Your task to perform on an android device: Is it going to rain this weekend? Image 0: 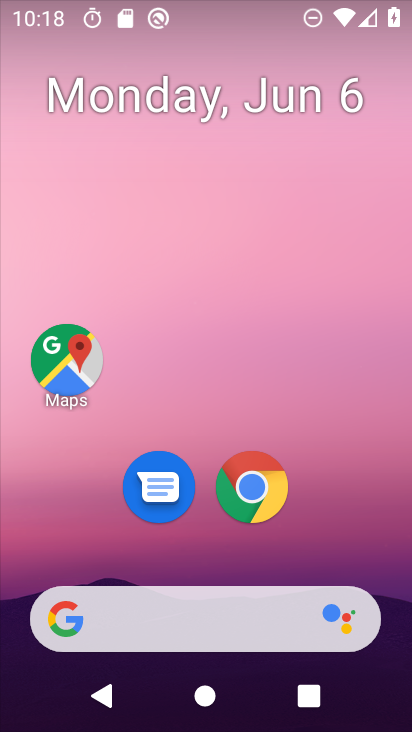
Step 0: drag from (398, 607) to (348, 32)
Your task to perform on an android device: Is it going to rain this weekend? Image 1: 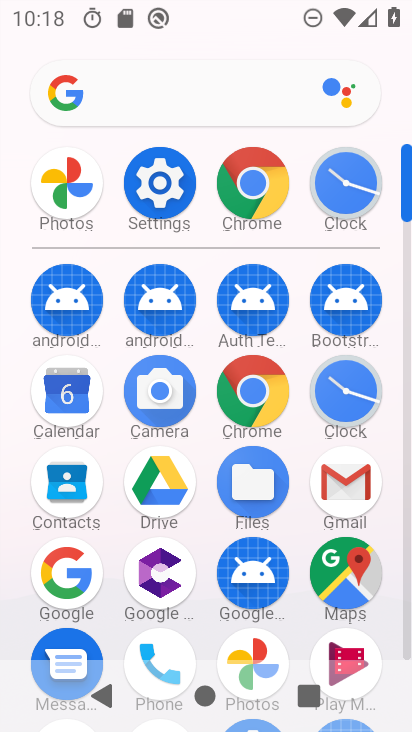
Step 1: click (85, 597)
Your task to perform on an android device: Is it going to rain this weekend? Image 2: 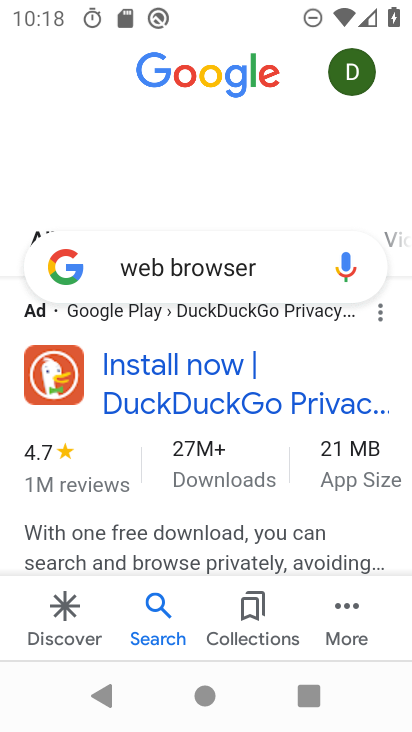
Step 2: press back button
Your task to perform on an android device: Is it going to rain this weekend? Image 3: 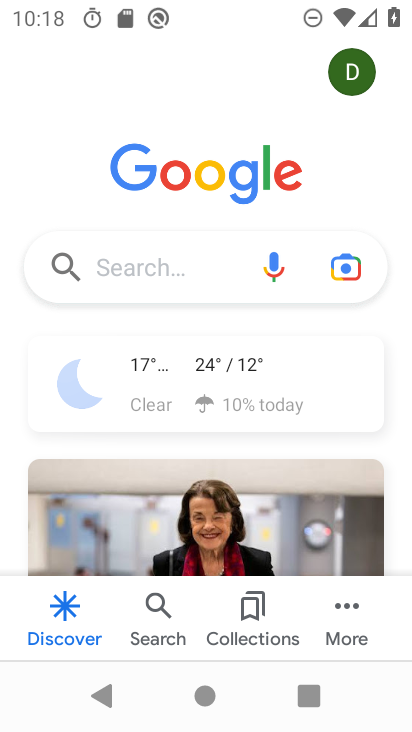
Step 3: click (148, 266)
Your task to perform on an android device: Is it going to rain this weekend? Image 4: 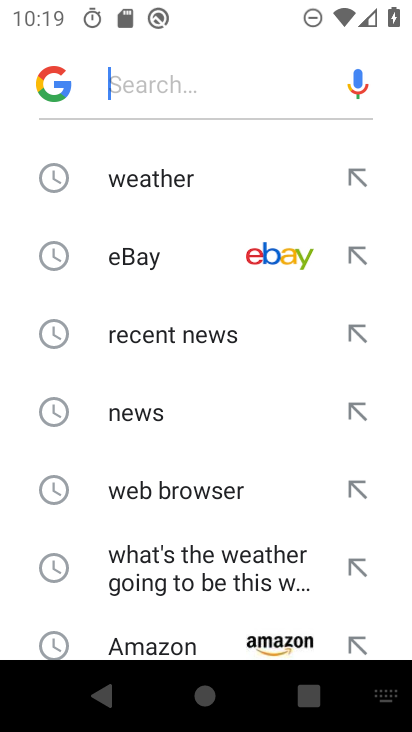
Step 4: drag from (179, 579) to (198, 86)
Your task to perform on an android device: Is it going to rain this weekend? Image 5: 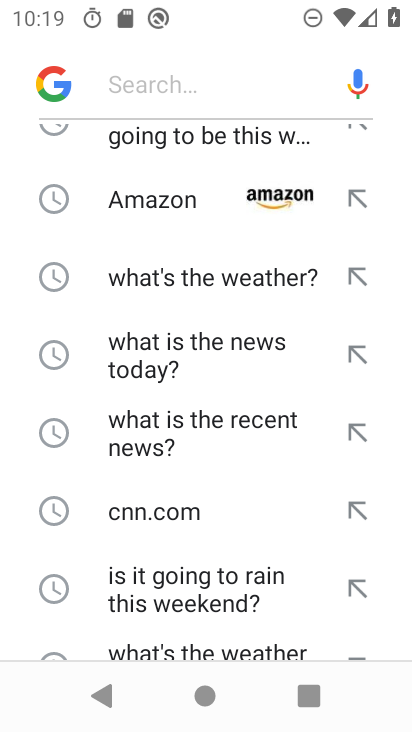
Step 5: drag from (146, 616) to (184, 286)
Your task to perform on an android device: Is it going to rain this weekend? Image 6: 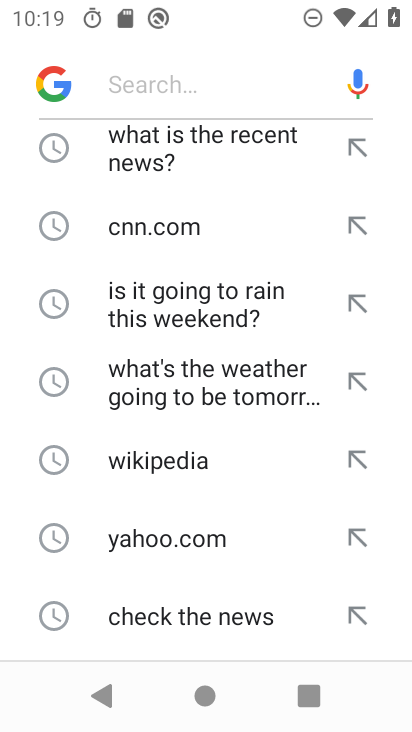
Step 6: click (178, 322)
Your task to perform on an android device: Is it going to rain this weekend? Image 7: 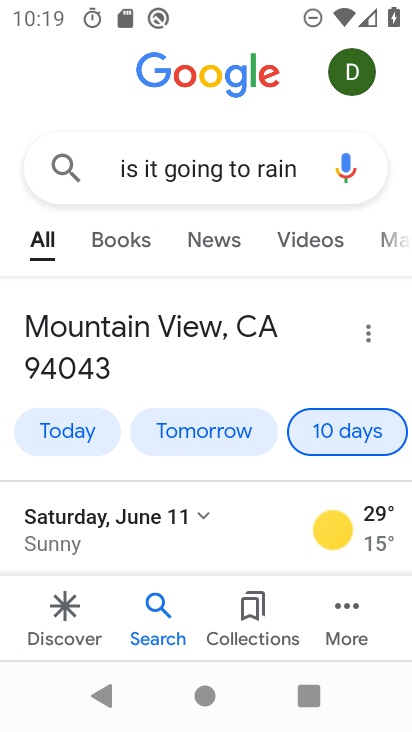
Step 7: task complete